Your task to perform on an android device: When is my next meeting? Image 0: 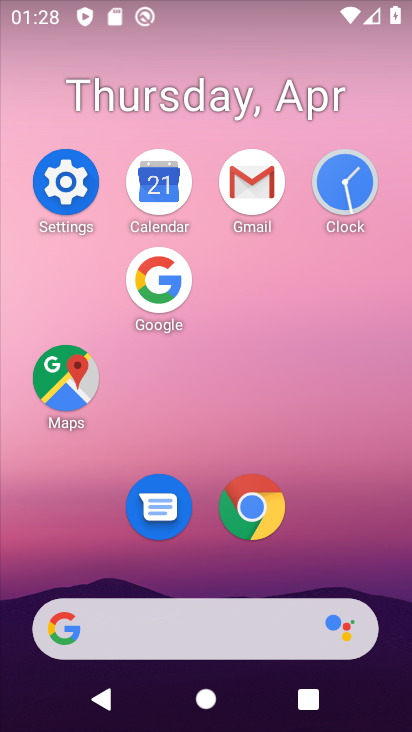
Step 0: click (170, 182)
Your task to perform on an android device: When is my next meeting? Image 1: 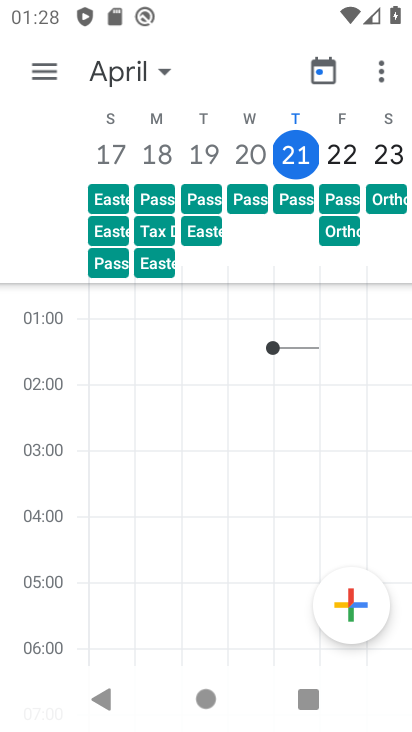
Step 1: click (24, 59)
Your task to perform on an android device: When is my next meeting? Image 2: 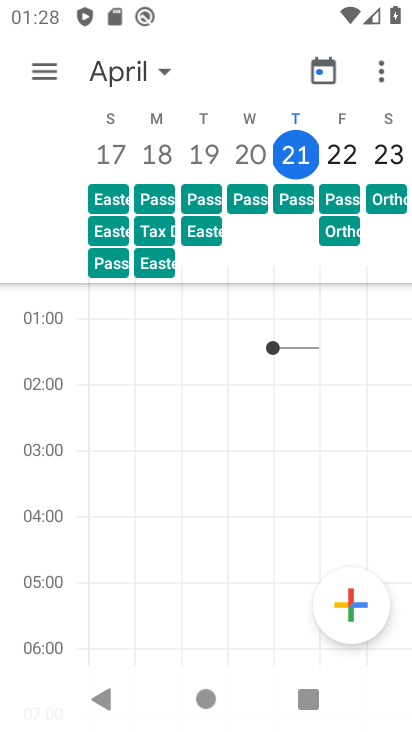
Step 2: click (56, 71)
Your task to perform on an android device: When is my next meeting? Image 3: 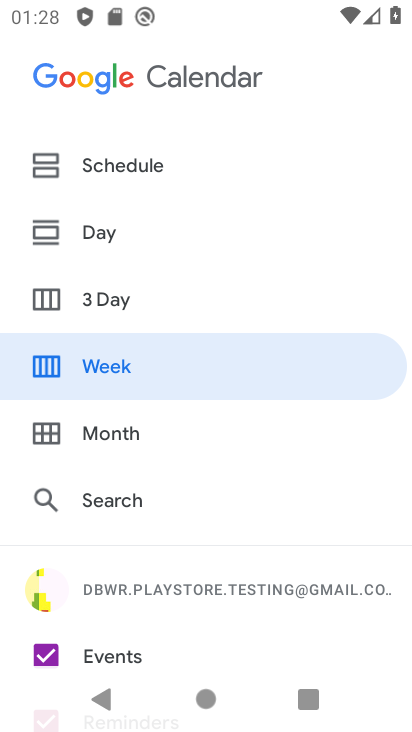
Step 3: click (117, 224)
Your task to perform on an android device: When is my next meeting? Image 4: 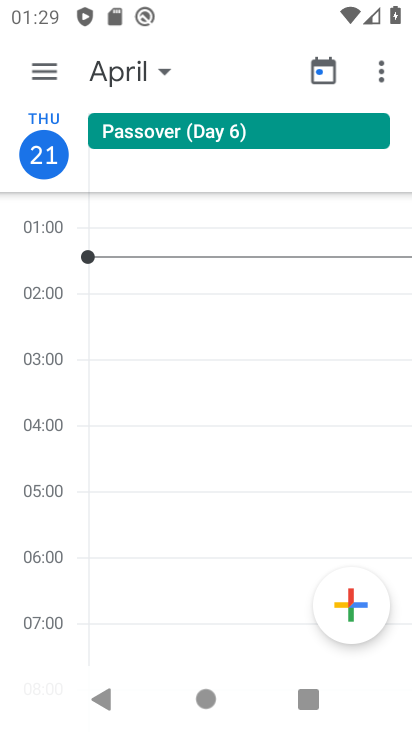
Step 4: task complete